Your task to perform on an android device: create a new album in the google photos Image 0: 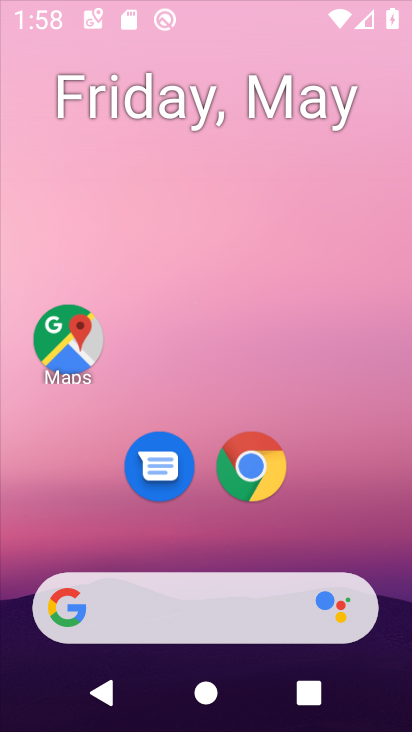
Step 0: click (412, 97)
Your task to perform on an android device: create a new album in the google photos Image 1: 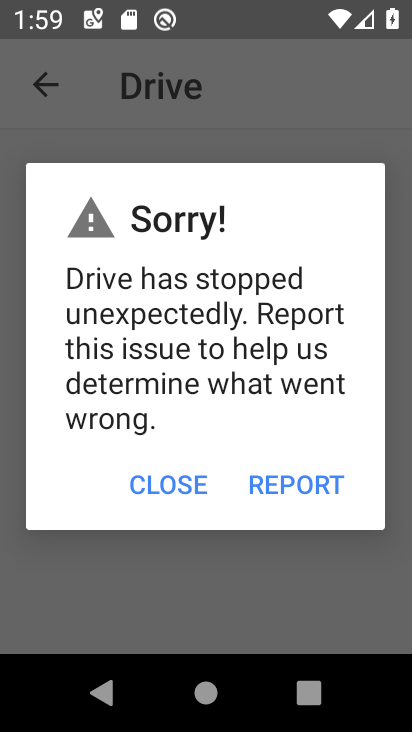
Step 1: press home button
Your task to perform on an android device: create a new album in the google photos Image 2: 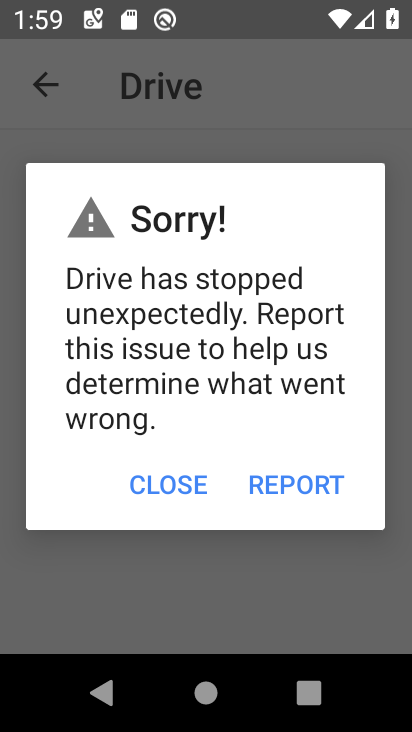
Step 2: drag from (412, 97) to (139, 4)
Your task to perform on an android device: create a new album in the google photos Image 3: 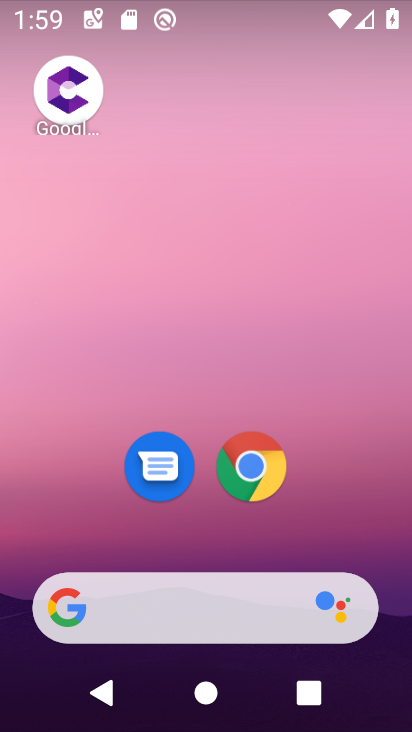
Step 3: drag from (356, 547) to (321, 125)
Your task to perform on an android device: create a new album in the google photos Image 4: 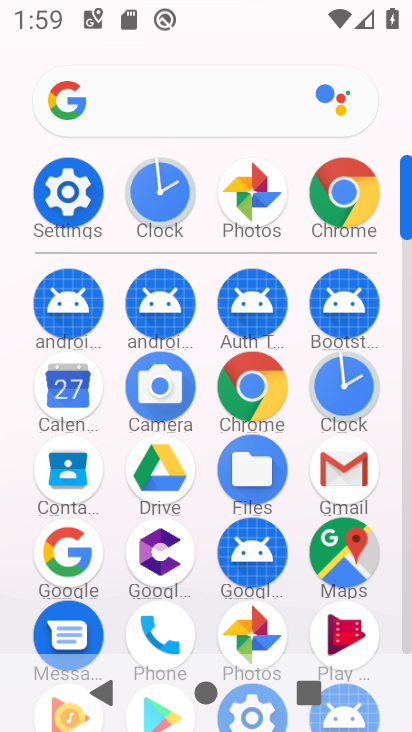
Step 4: click (265, 206)
Your task to perform on an android device: create a new album in the google photos Image 5: 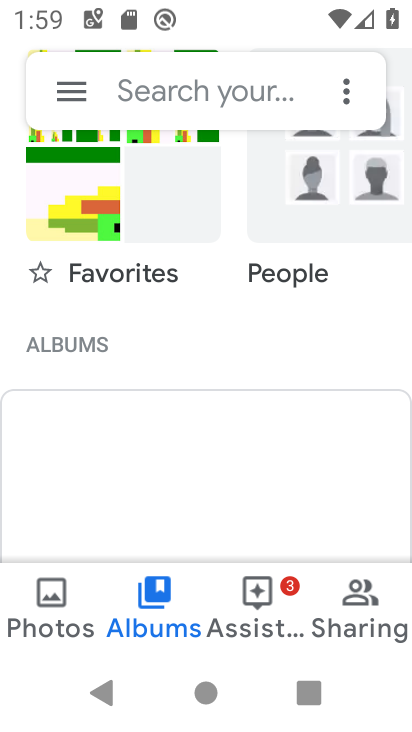
Step 5: drag from (190, 457) to (189, 97)
Your task to perform on an android device: create a new album in the google photos Image 6: 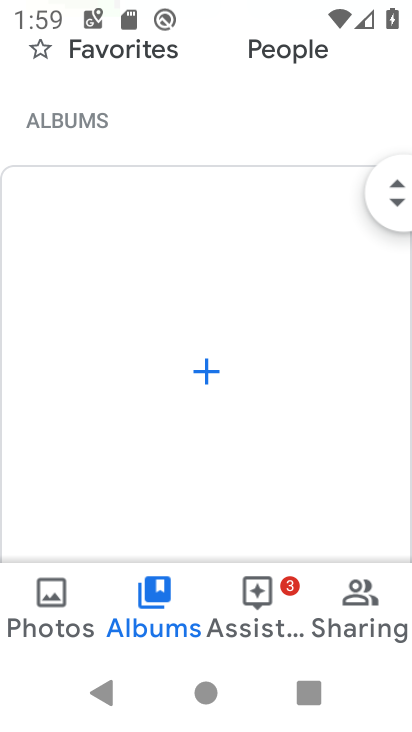
Step 6: click (213, 372)
Your task to perform on an android device: create a new album in the google photos Image 7: 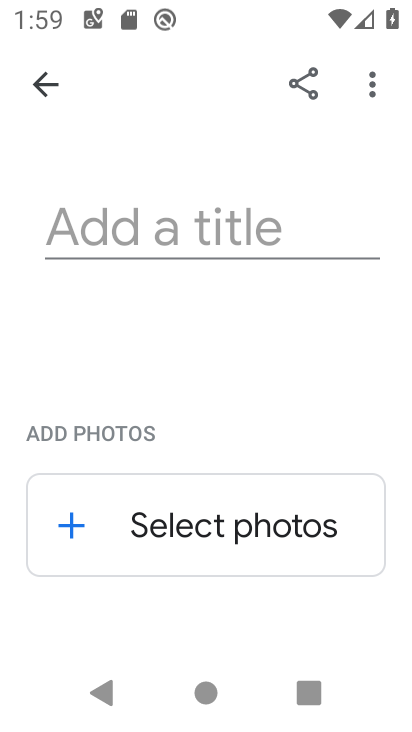
Step 7: click (187, 229)
Your task to perform on an android device: create a new album in the google photos Image 8: 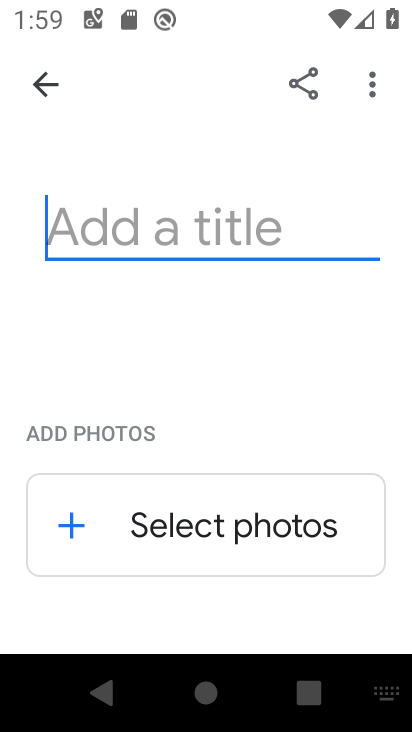
Step 8: type "teyey"
Your task to perform on an android device: create a new album in the google photos Image 9: 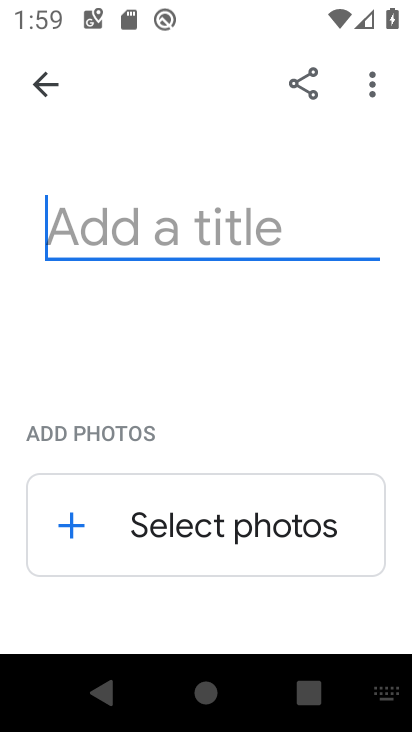
Step 9: click (255, 405)
Your task to perform on an android device: create a new album in the google photos Image 10: 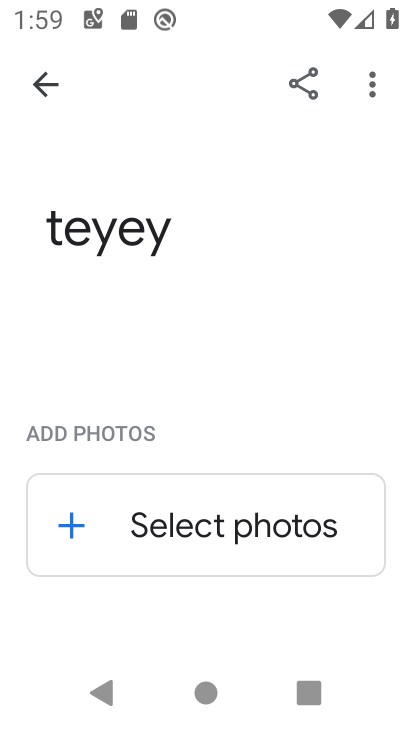
Step 10: click (219, 530)
Your task to perform on an android device: create a new album in the google photos Image 11: 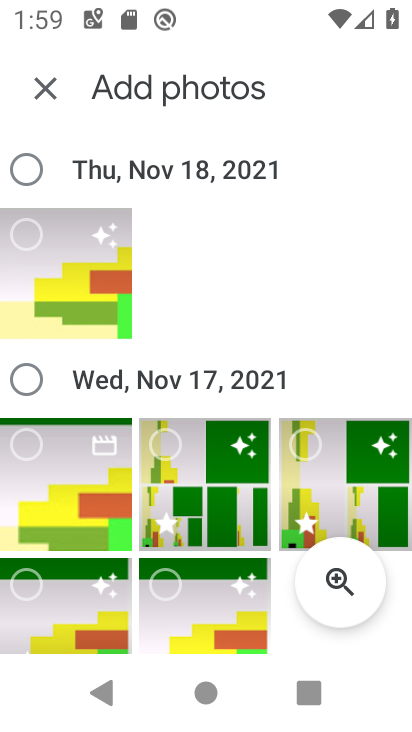
Step 11: click (34, 450)
Your task to perform on an android device: create a new album in the google photos Image 12: 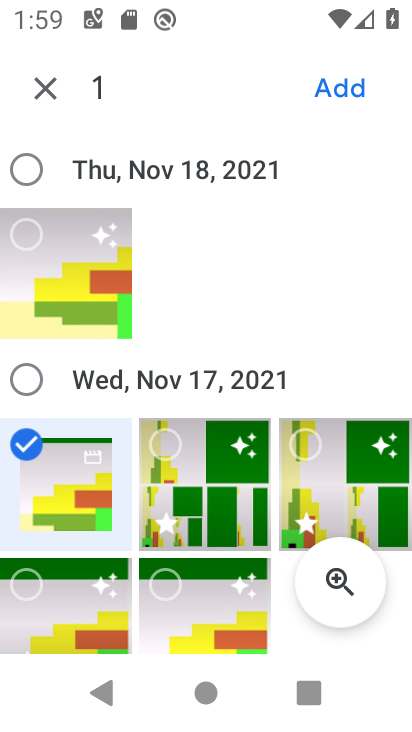
Step 12: click (175, 459)
Your task to perform on an android device: create a new album in the google photos Image 13: 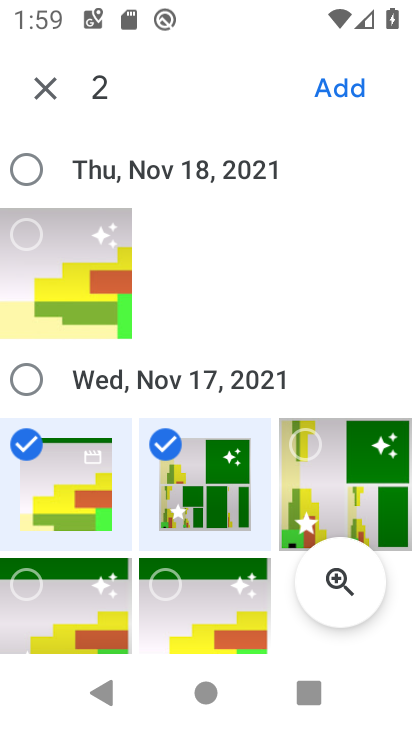
Step 13: click (340, 97)
Your task to perform on an android device: create a new album in the google photos Image 14: 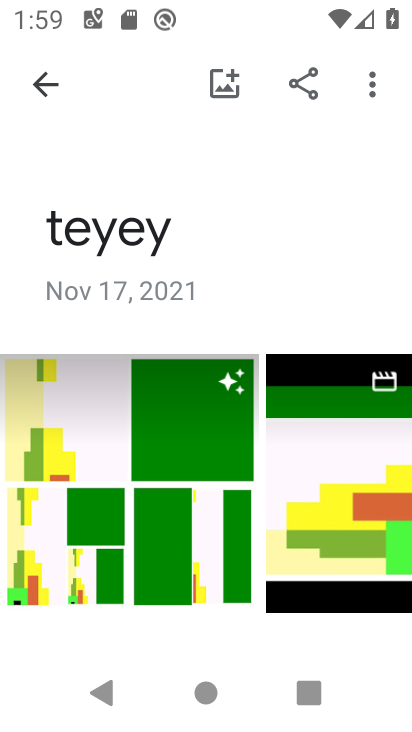
Step 14: task complete